Your task to perform on an android device: move a message to another label in the gmail app Image 0: 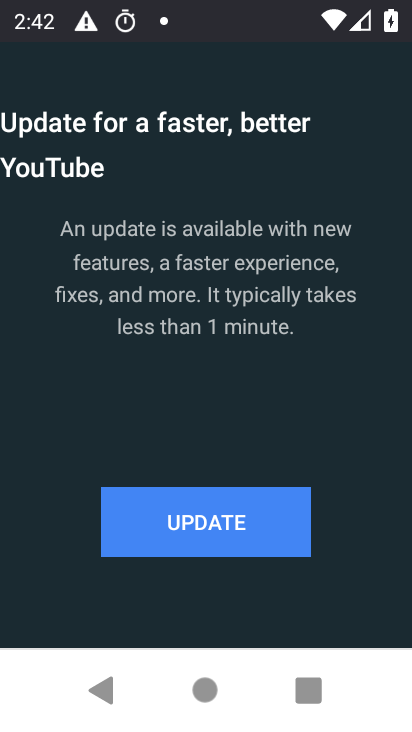
Step 0: press back button
Your task to perform on an android device: move a message to another label in the gmail app Image 1: 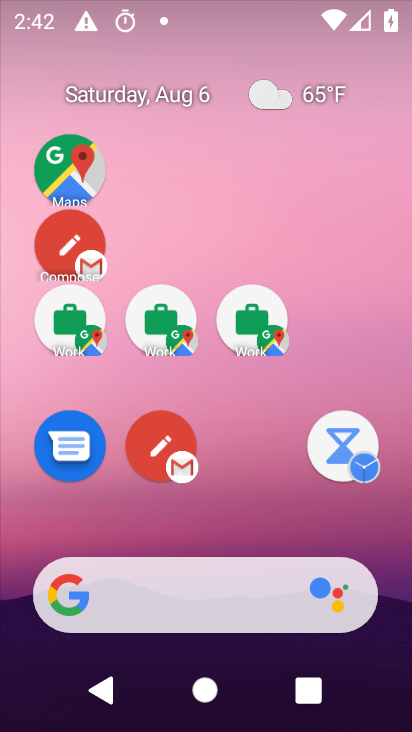
Step 1: drag from (206, 266) to (190, 127)
Your task to perform on an android device: move a message to another label in the gmail app Image 2: 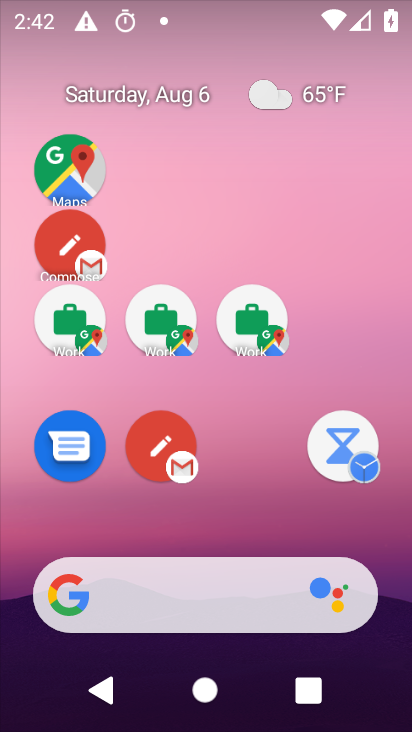
Step 2: drag from (225, 430) to (245, 40)
Your task to perform on an android device: move a message to another label in the gmail app Image 3: 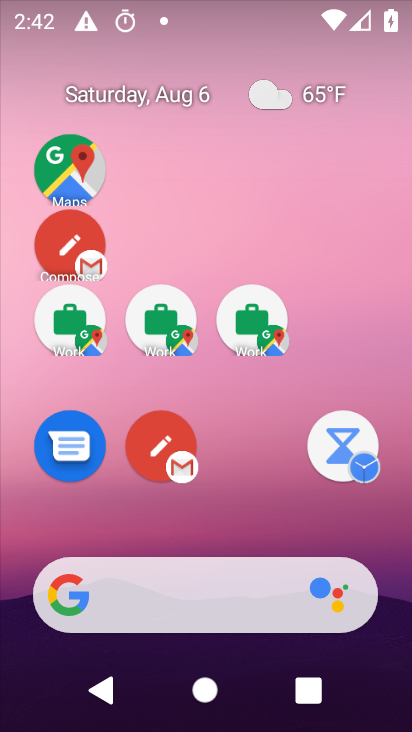
Step 3: drag from (223, 385) to (165, 155)
Your task to perform on an android device: move a message to another label in the gmail app Image 4: 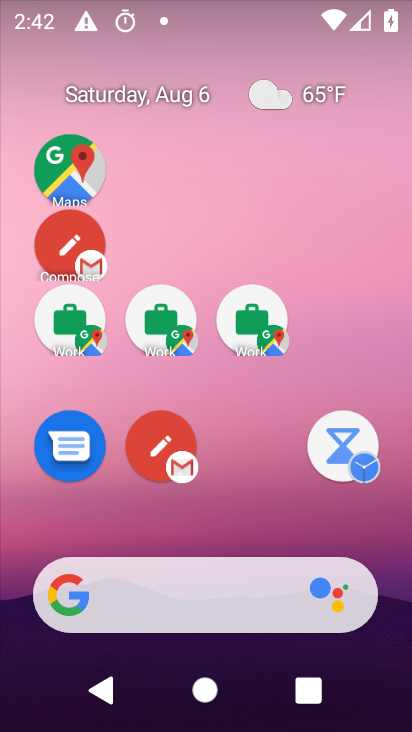
Step 4: drag from (244, 472) to (226, 124)
Your task to perform on an android device: move a message to another label in the gmail app Image 5: 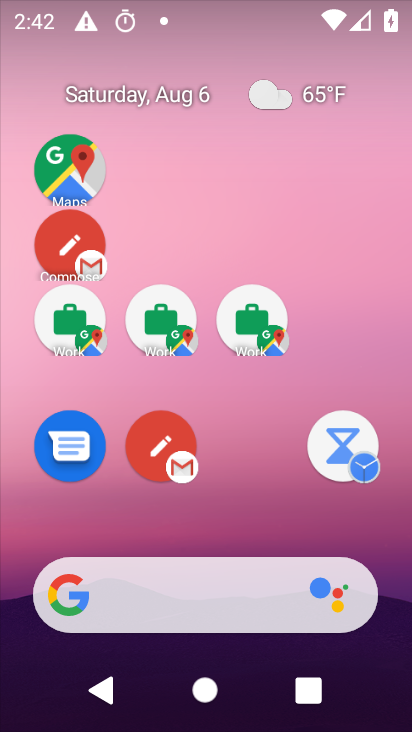
Step 5: drag from (245, 640) to (203, 206)
Your task to perform on an android device: move a message to another label in the gmail app Image 6: 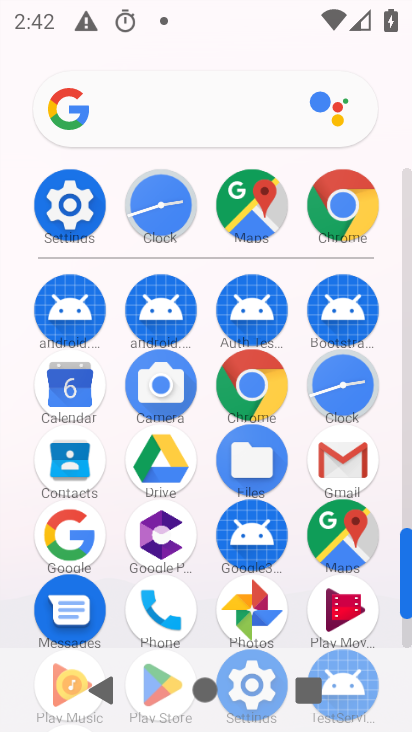
Step 6: click (345, 447)
Your task to perform on an android device: move a message to another label in the gmail app Image 7: 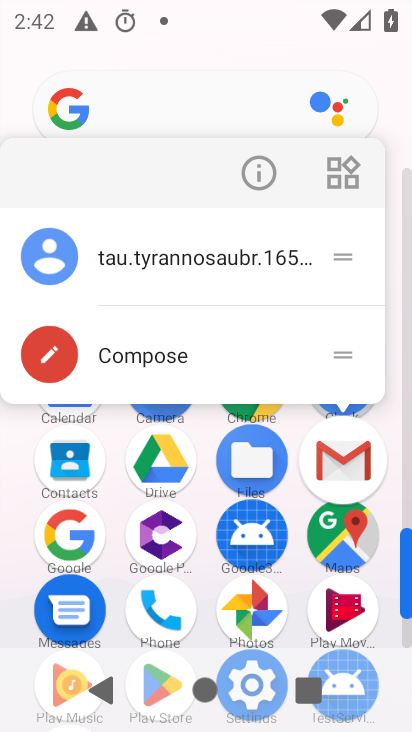
Step 7: click (345, 457)
Your task to perform on an android device: move a message to another label in the gmail app Image 8: 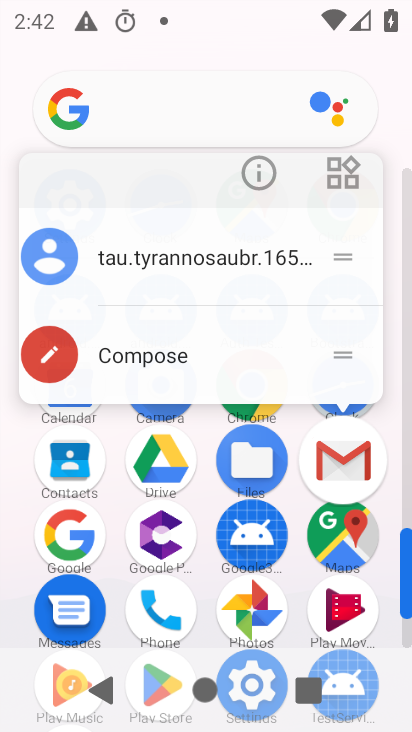
Step 8: click (347, 453)
Your task to perform on an android device: move a message to another label in the gmail app Image 9: 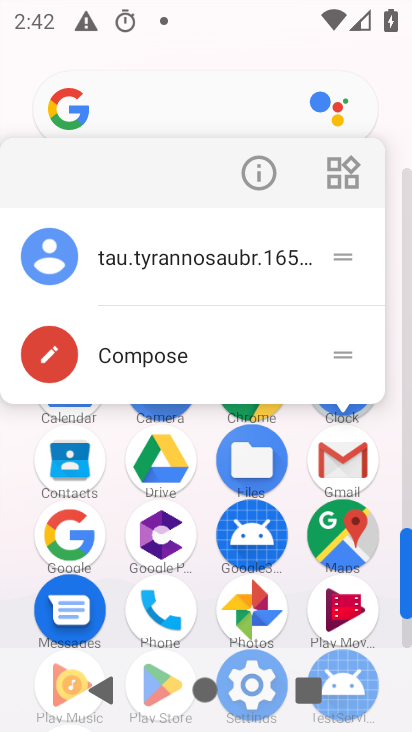
Step 9: click (348, 457)
Your task to perform on an android device: move a message to another label in the gmail app Image 10: 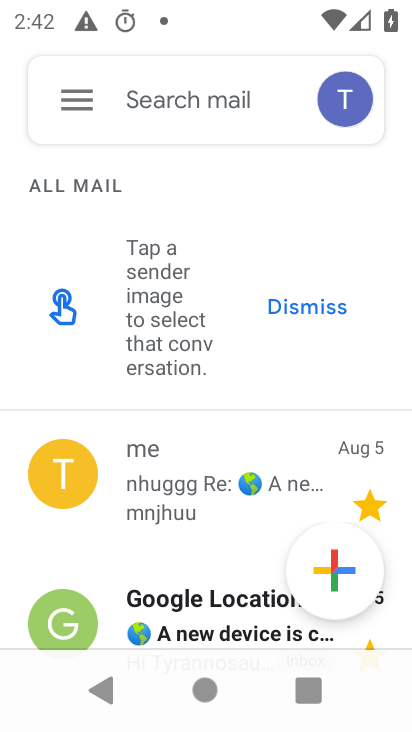
Step 10: drag from (239, 534) to (217, 165)
Your task to perform on an android device: move a message to another label in the gmail app Image 11: 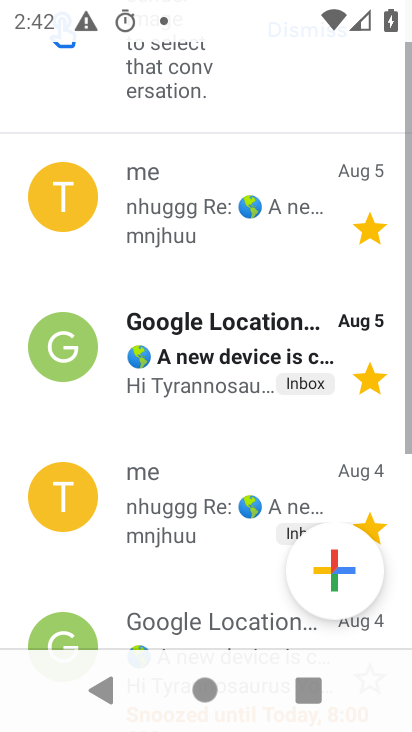
Step 11: drag from (222, 479) to (240, 209)
Your task to perform on an android device: move a message to another label in the gmail app Image 12: 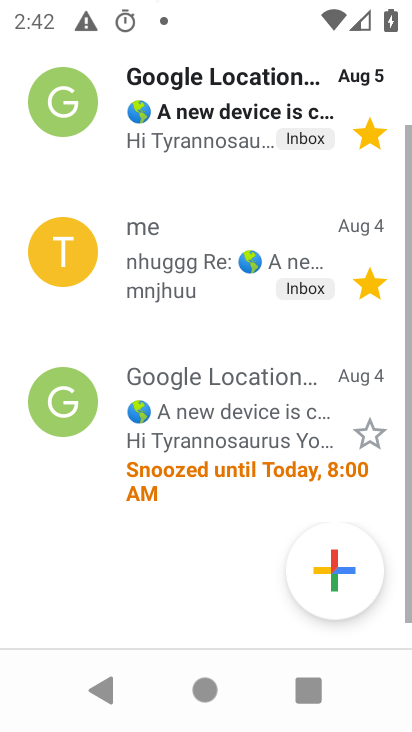
Step 12: click (232, 401)
Your task to perform on an android device: move a message to another label in the gmail app Image 13: 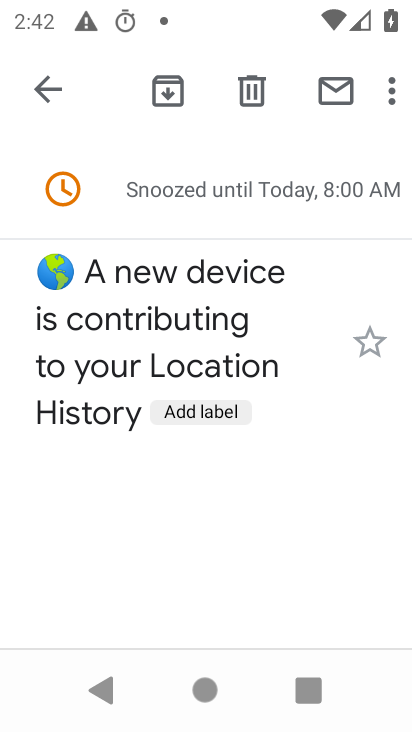
Step 13: click (360, 339)
Your task to perform on an android device: move a message to another label in the gmail app Image 14: 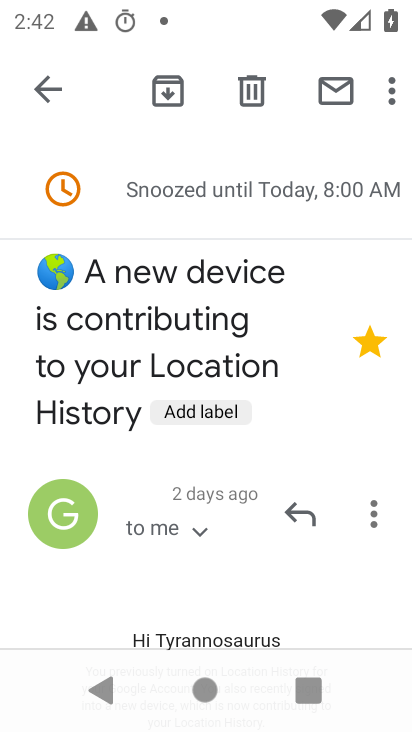
Step 14: task complete